Your task to perform on an android device: When is my next appointment? Image 0: 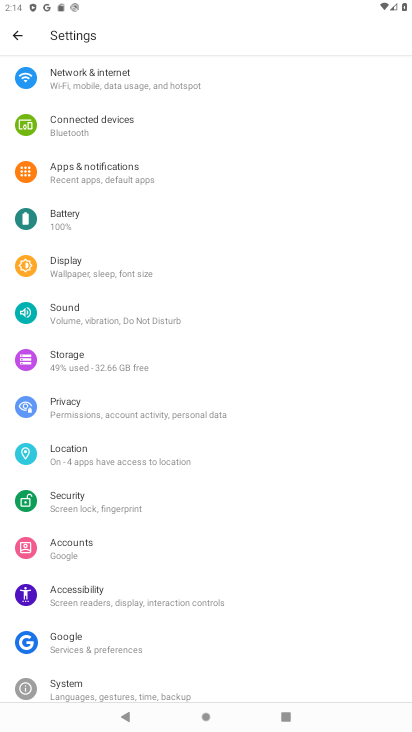
Step 0: press home button
Your task to perform on an android device: When is my next appointment? Image 1: 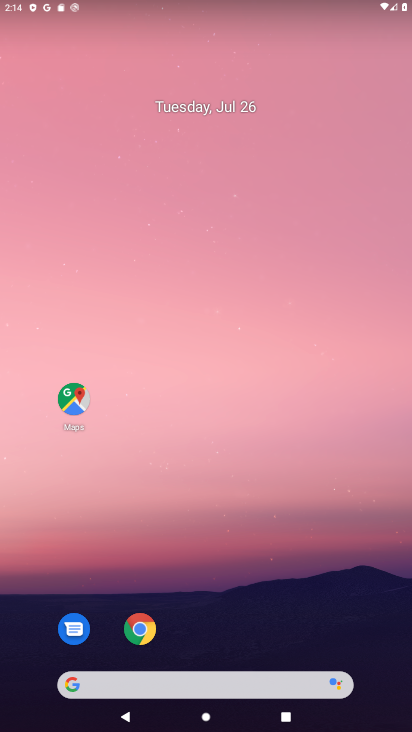
Step 1: drag from (312, 630) to (201, 50)
Your task to perform on an android device: When is my next appointment? Image 2: 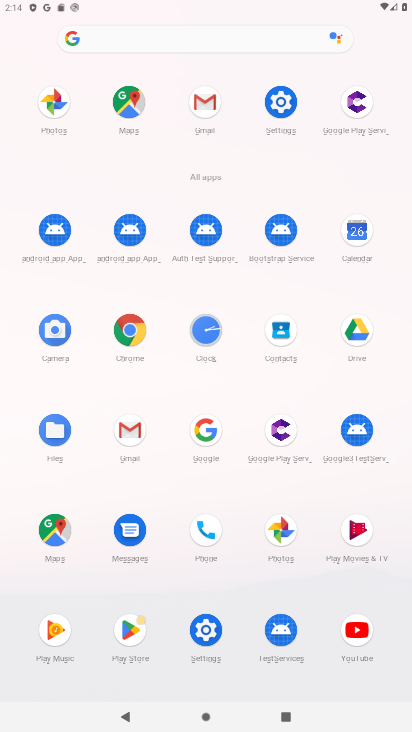
Step 2: click (360, 239)
Your task to perform on an android device: When is my next appointment? Image 3: 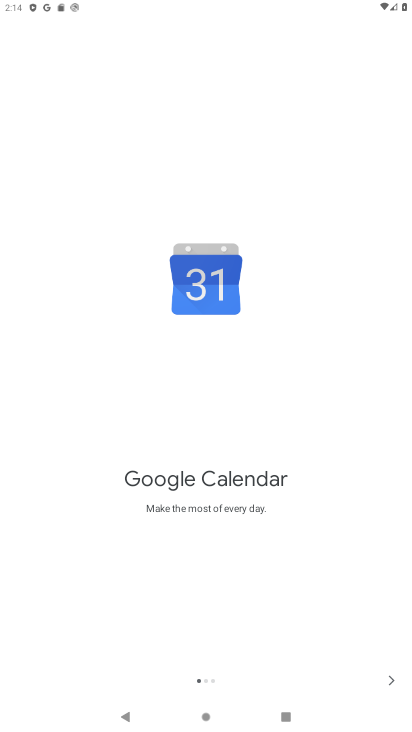
Step 3: click (397, 681)
Your task to perform on an android device: When is my next appointment? Image 4: 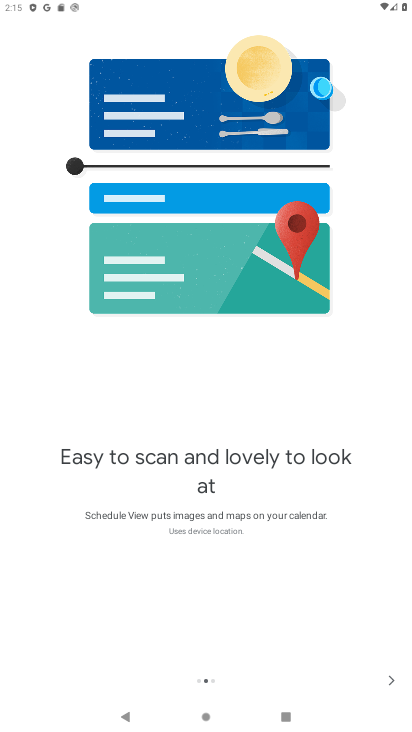
Step 4: click (395, 686)
Your task to perform on an android device: When is my next appointment? Image 5: 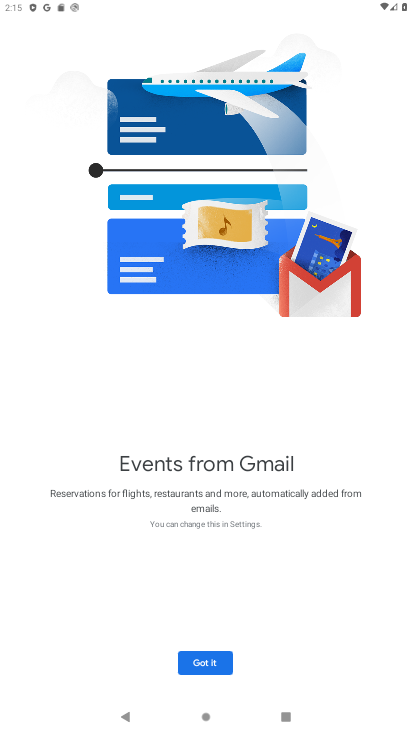
Step 5: click (193, 660)
Your task to perform on an android device: When is my next appointment? Image 6: 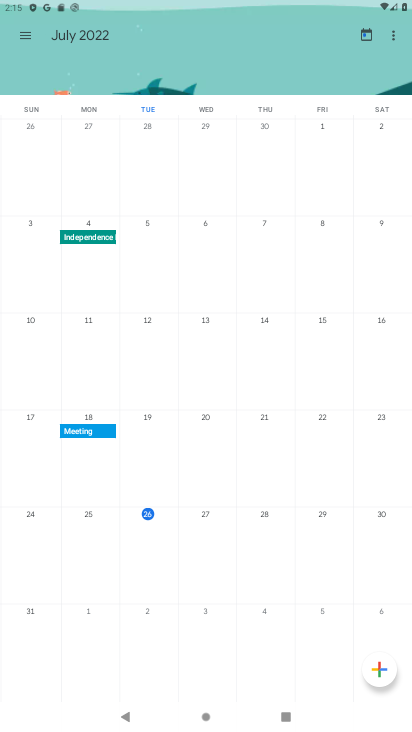
Step 6: click (23, 33)
Your task to perform on an android device: When is my next appointment? Image 7: 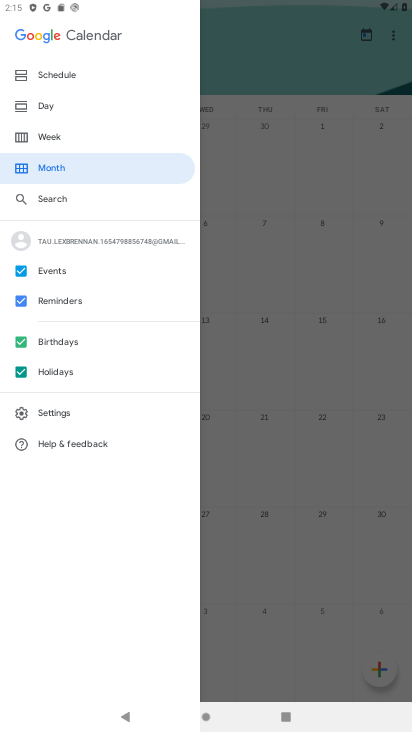
Step 7: click (62, 72)
Your task to perform on an android device: When is my next appointment? Image 8: 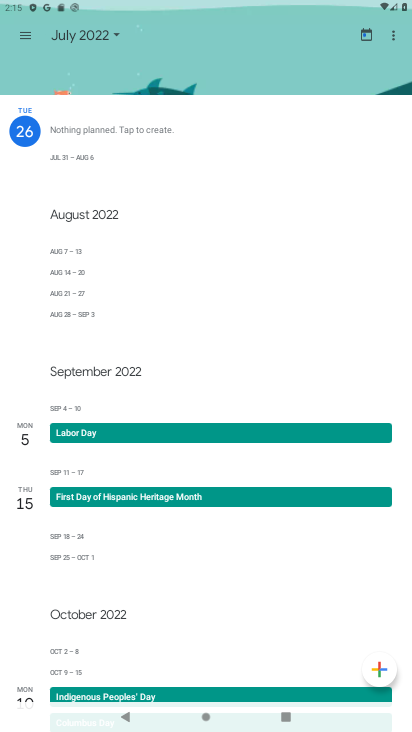
Step 8: task complete